Your task to perform on an android device: turn off notifications in google photos Image 0: 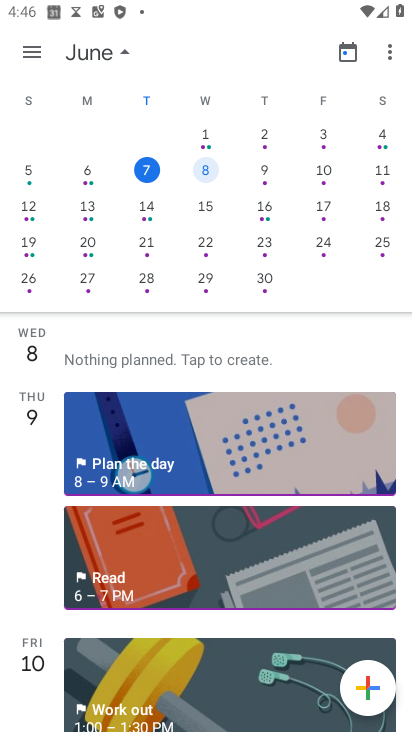
Step 0: press back button
Your task to perform on an android device: turn off notifications in google photos Image 1: 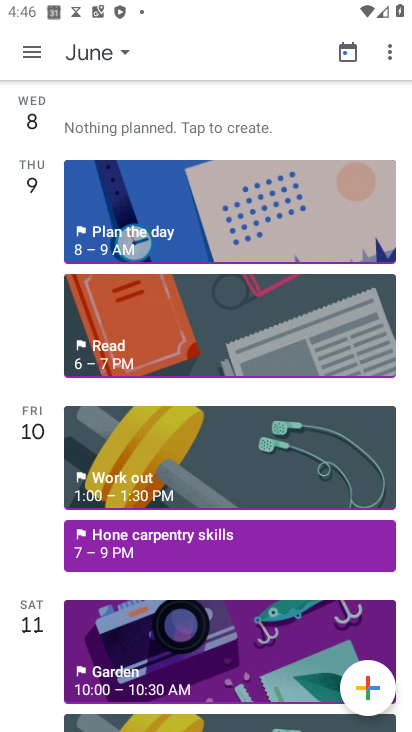
Step 1: press home button
Your task to perform on an android device: turn off notifications in google photos Image 2: 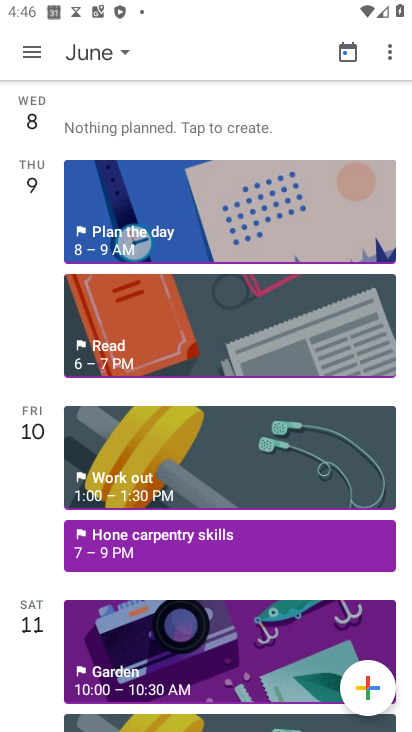
Step 2: press home button
Your task to perform on an android device: turn off notifications in google photos Image 3: 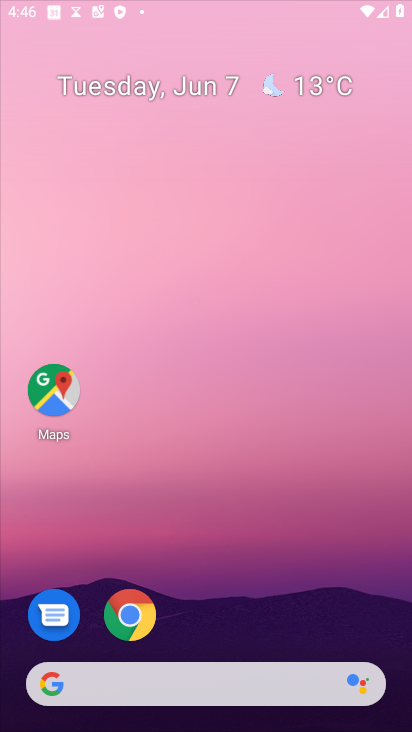
Step 3: press home button
Your task to perform on an android device: turn off notifications in google photos Image 4: 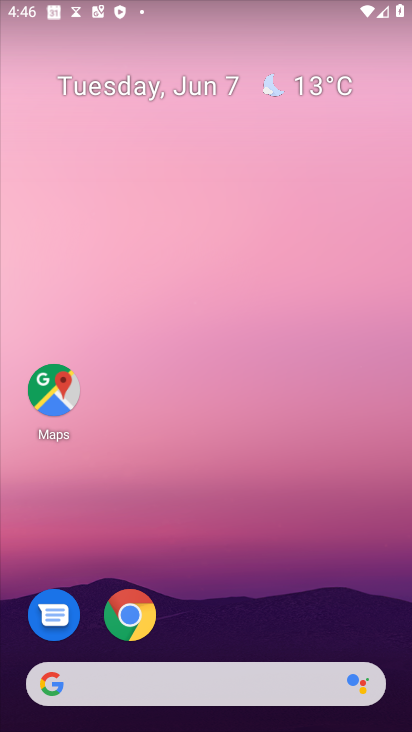
Step 4: drag from (211, 633) to (126, 59)
Your task to perform on an android device: turn off notifications in google photos Image 5: 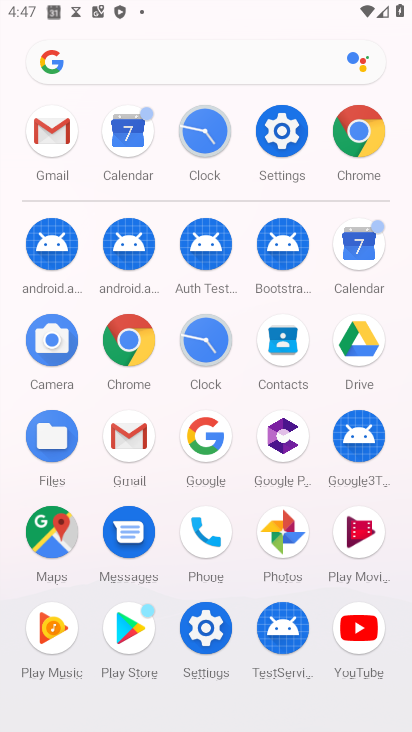
Step 5: click (286, 522)
Your task to perform on an android device: turn off notifications in google photos Image 6: 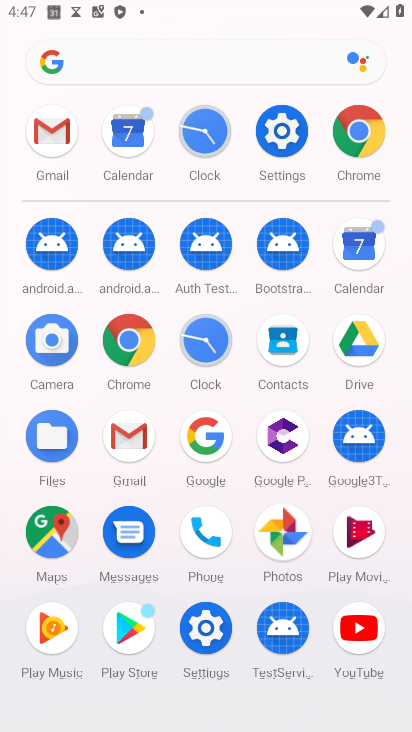
Step 6: click (285, 528)
Your task to perform on an android device: turn off notifications in google photos Image 7: 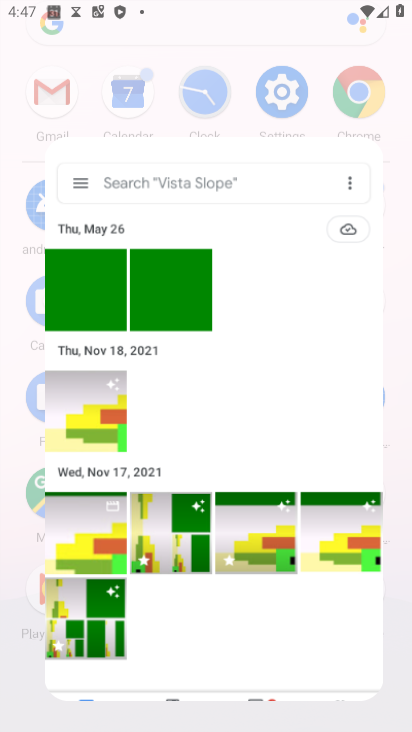
Step 7: click (285, 528)
Your task to perform on an android device: turn off notifications in google photos Image 8: 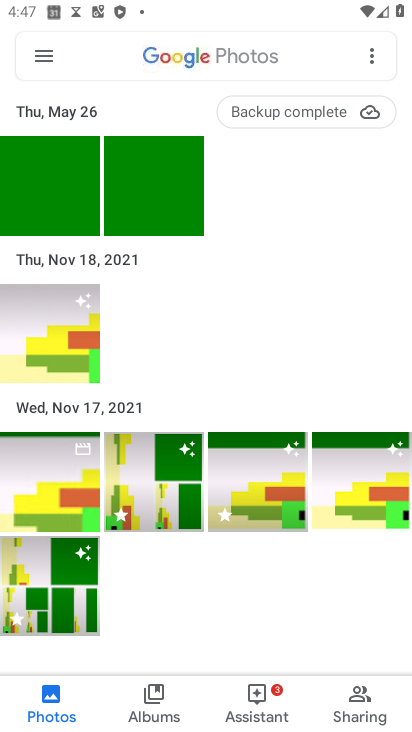
Step 8: click (46, 52)
Your task to perform on an android device: turn off notifications in google photos Image 9: 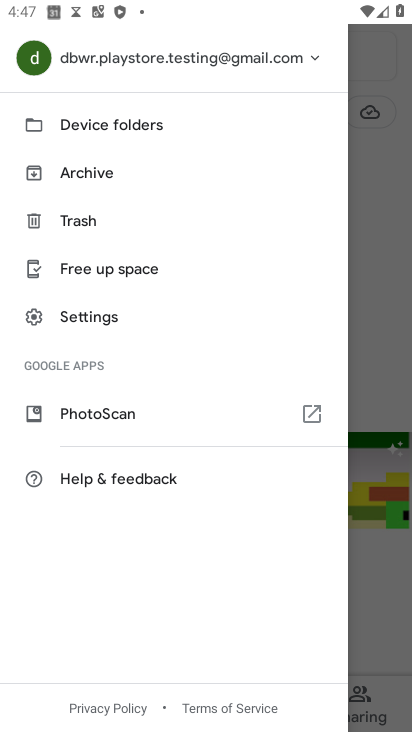
Step 9: click (78, 319)
Your task to perform on an android device: turn off notifications in google photos Image 10: 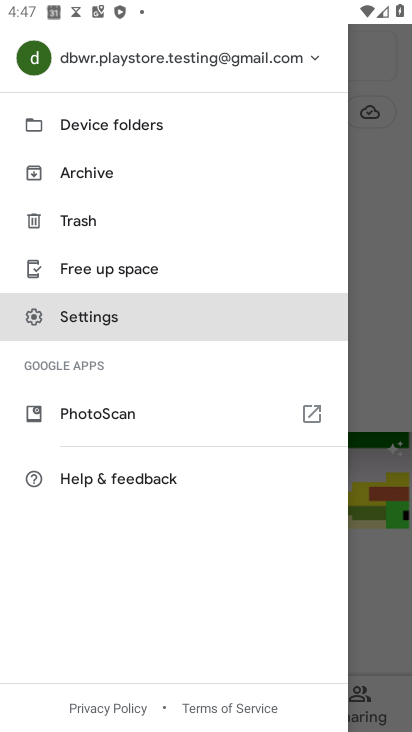
Step 10: click (78, 319)
Your task to perform on an android device: turn off notifications in google photos Image 11: 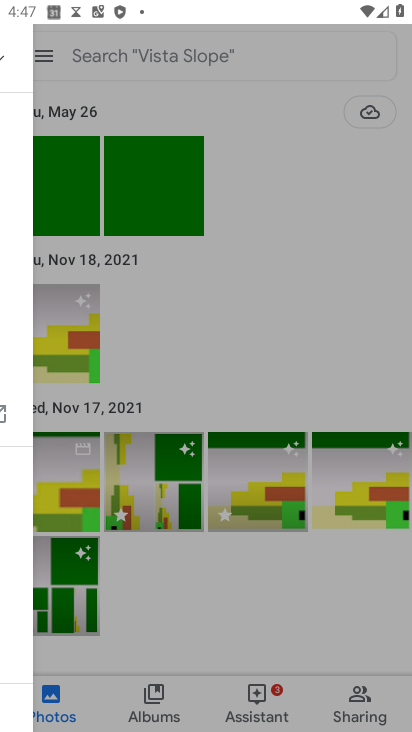
Step 11: click (79, 318)
Your task to perform on an android device: turn off notifications in google photos Image 12: 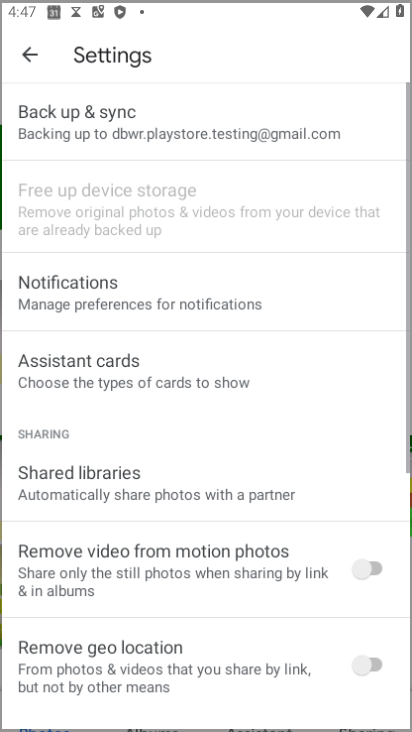
Step 12: click (80, 319)
Your task to perform on an android device: turn off notifications in google photos Image 13: 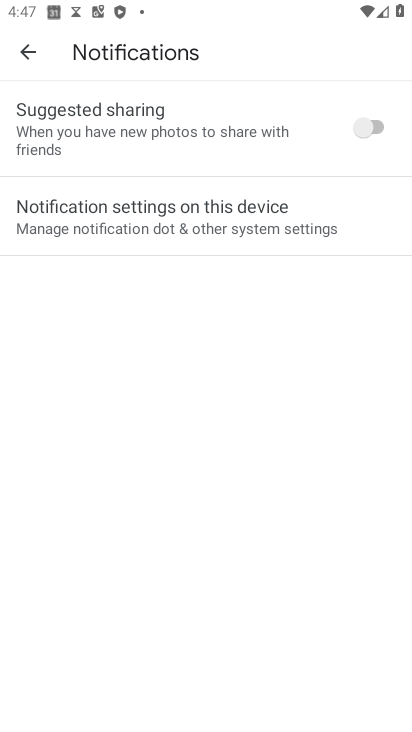
Step 13: click (127, 226)
Your task to perform on an android device: turn off notifications in google photos Image 14: 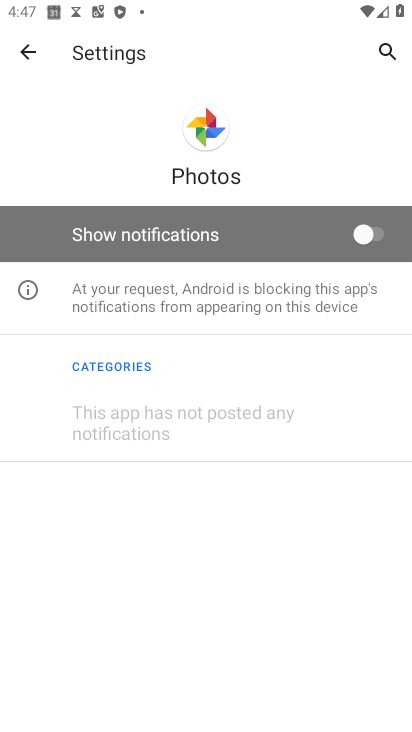
Step 14: task complete